Your task to perform on an android device: turn off translation in the chrome app Image 0: 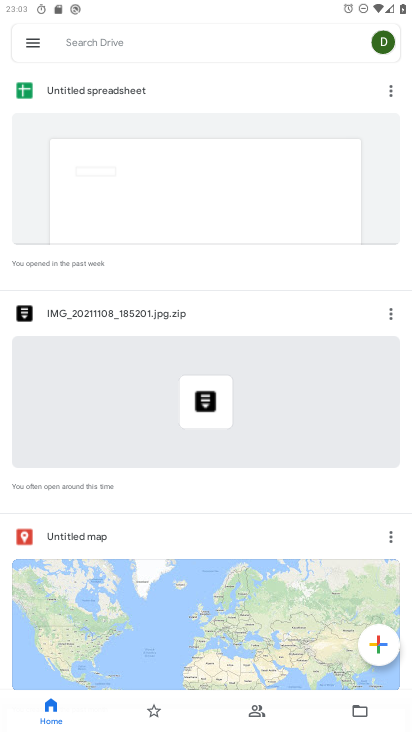
Step 0: drag from (237, 618) to (361, 117)
Your task to perform on an android device: turn off translation in the chrome app Image 1: 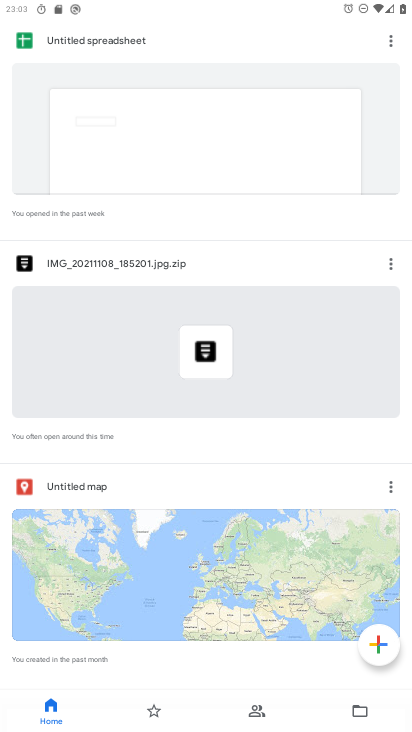
Step 1: press home button
Your task to perform on an android device: turn off translation in the chrome app Image 2: 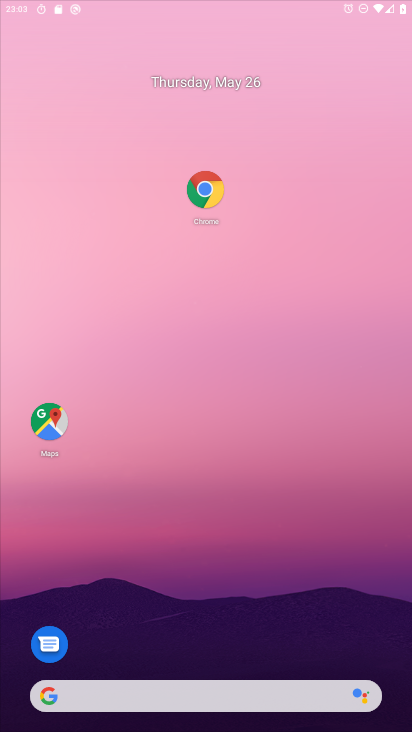
Step 2: drag from (191, 602) to (265, 117)
Your task to perform on an android device: turn off translation in the chrome app Image 3: 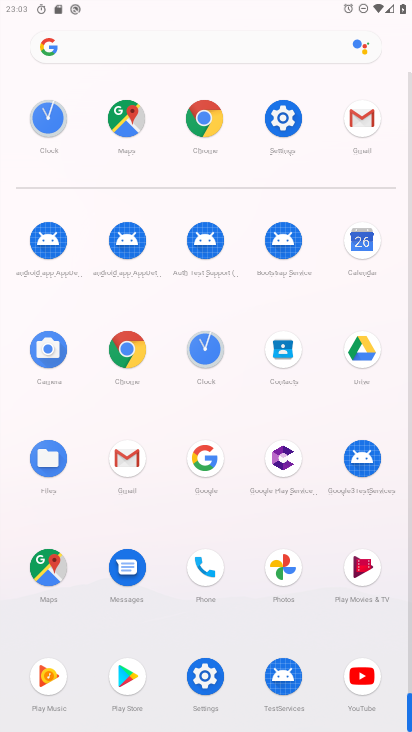
Step 3: click (120, 352)
Your task to perform on an android device: turn off translation in the chrome app Image 4: 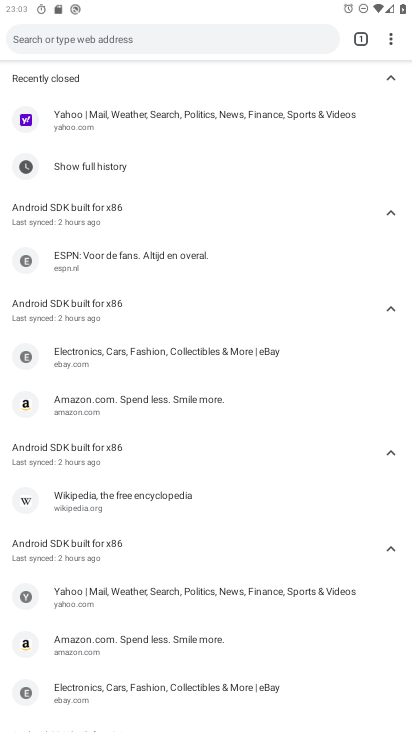
Step 4: drag from (387, 39) to (286, 333)
Your task to perform on an android device: turn off translation in the chrome app Image 5: 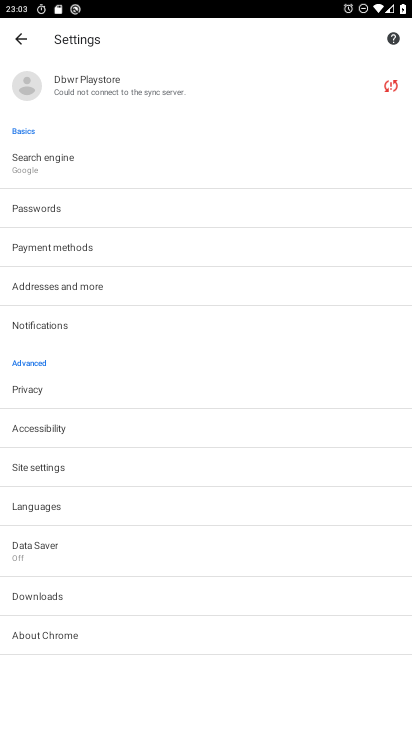
Step 5: click (58, 509)
Your task to perform on an android device: turn off translation in the chrome app Image 6: 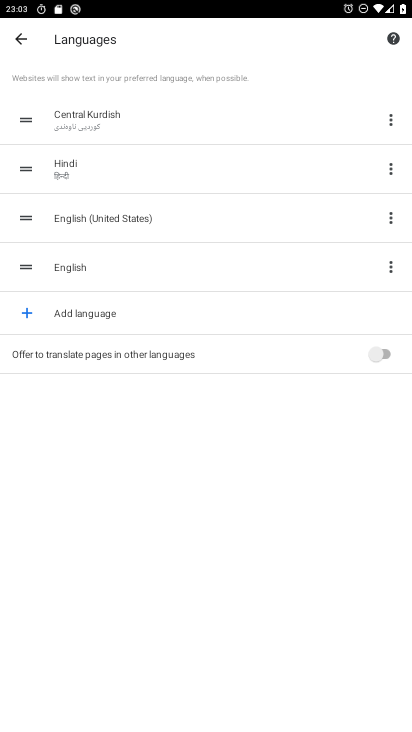
Step 6: task complete